Your task to perform on an android device: open app "Flipkart Online Shopping App" Image 0: 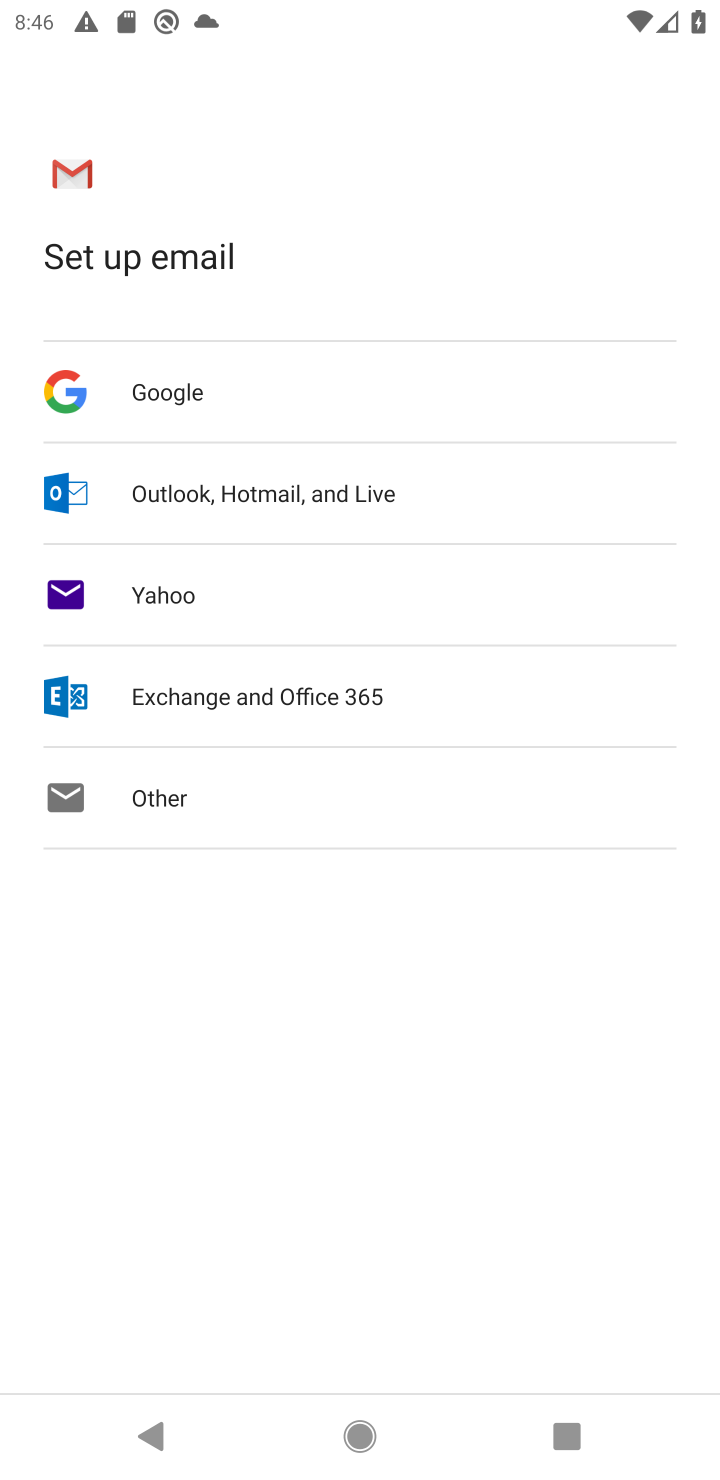
Step 0: press home button
Your task to perform on an android device: open app "Flipkart Online Shopping App" Image 1: 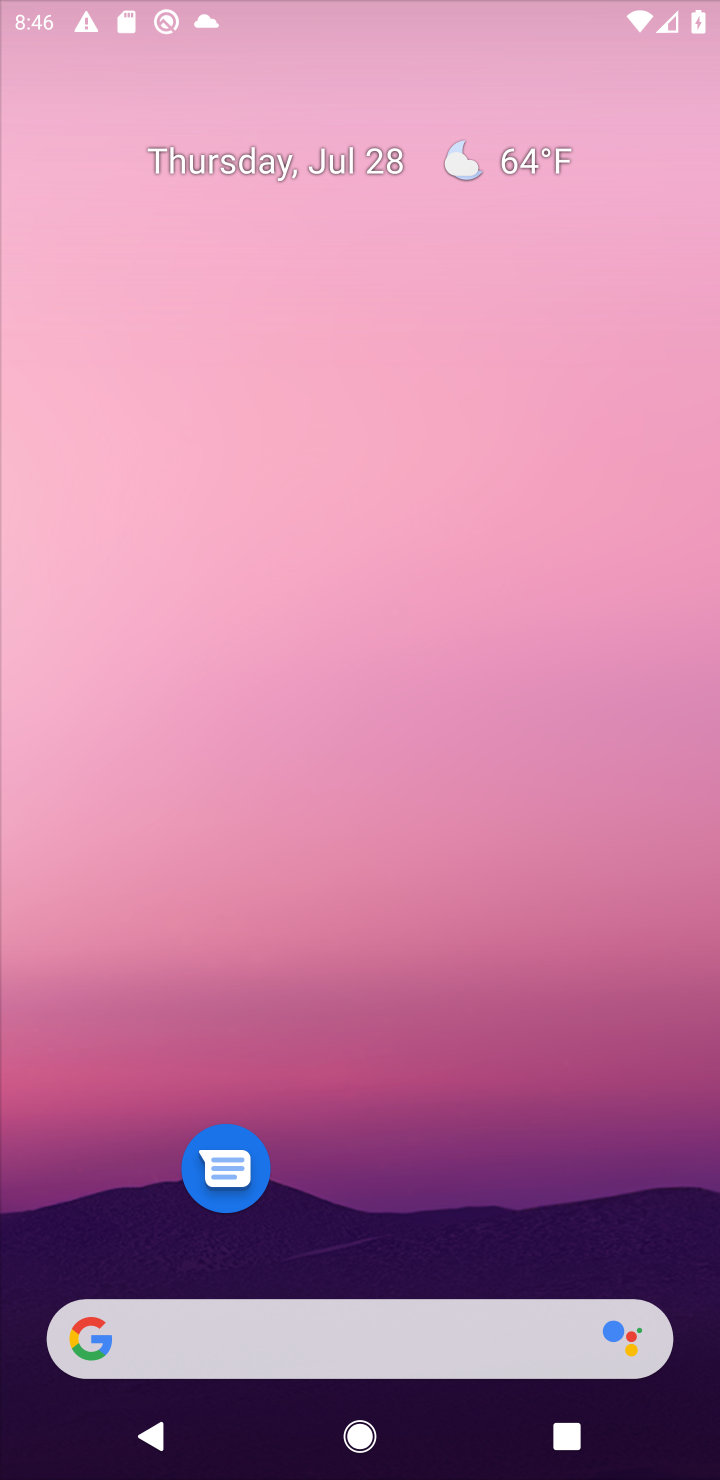
Step 1: drag from (545, 1318) to (702, 182)
Your task to perform on an android device: open app "Flipkart Online Shopping App" Image 2: 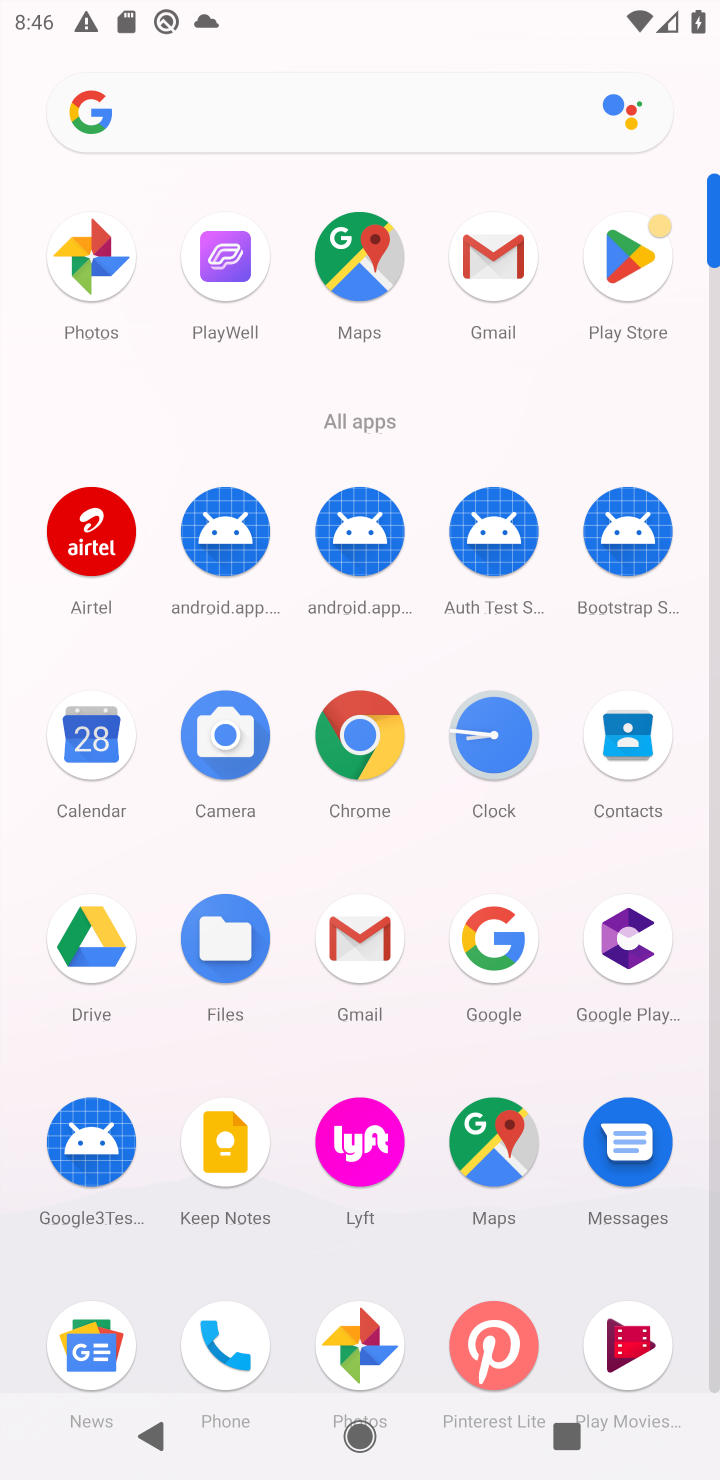
Step 2: drag from (422, 1243) to (423, 378)
Your task to perform on an android device: open app "Flipkart Online Shopping App" Image 3: 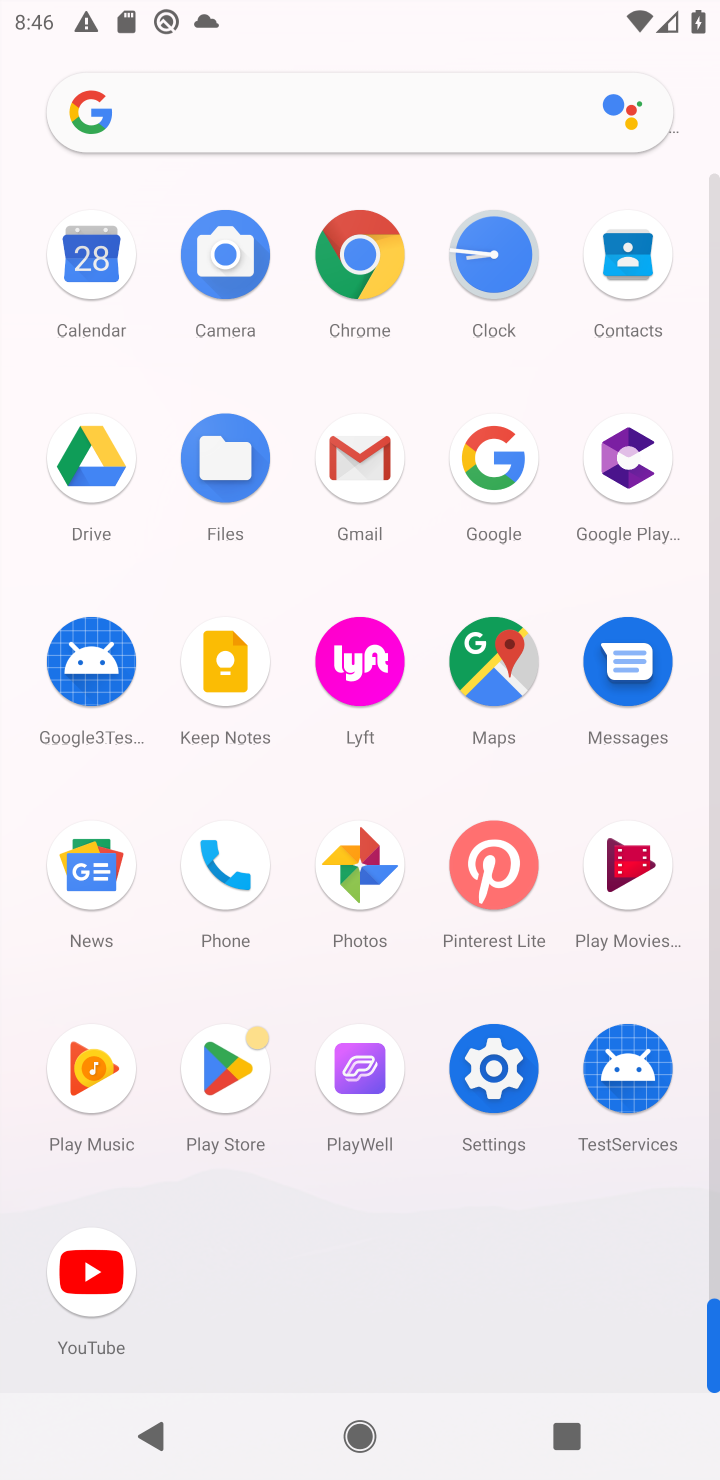
Step 3: click (227, 1073)
Your task to perform on an android device: open app "Flipkart Online Shopping App" Image 4: 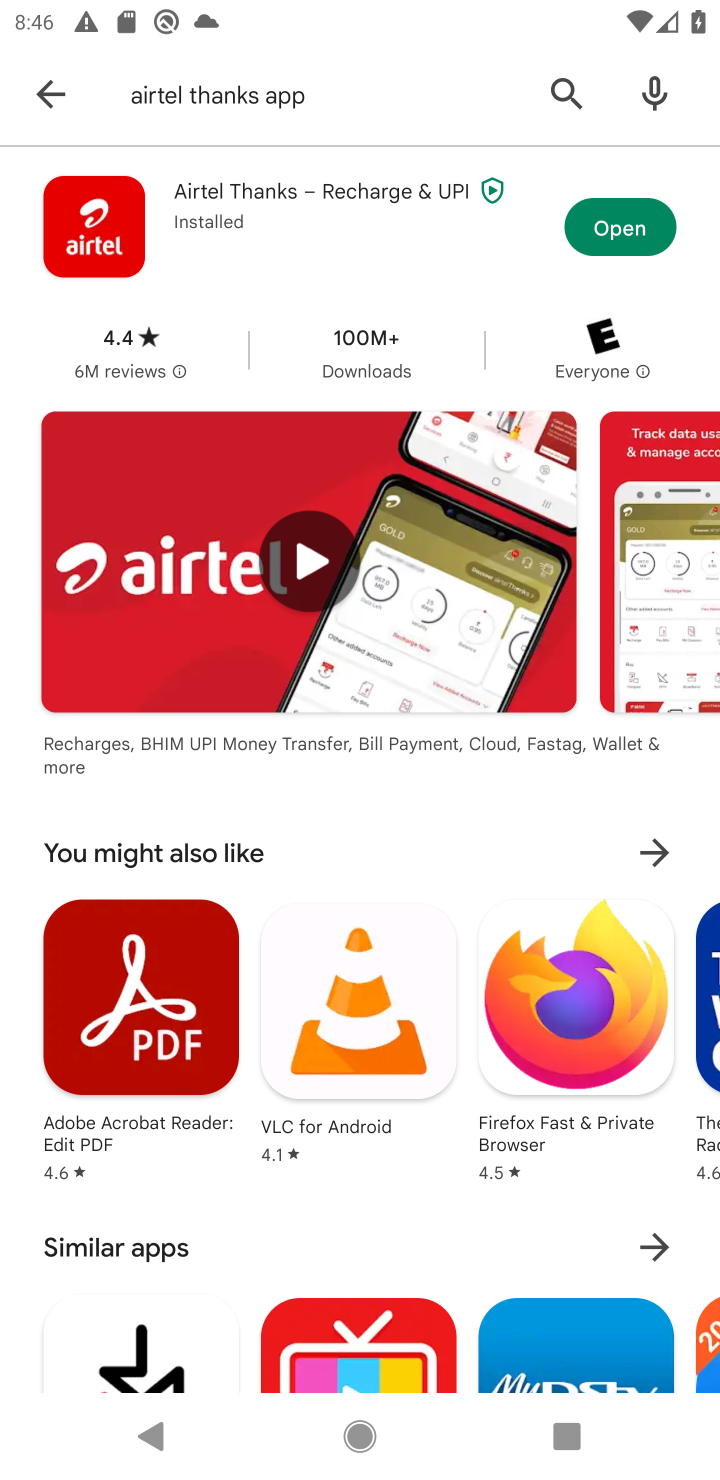
Step 4: click (550, 89)
Your task to perform on an android device: open app "Flipkart Online Shopping App" Image 5: 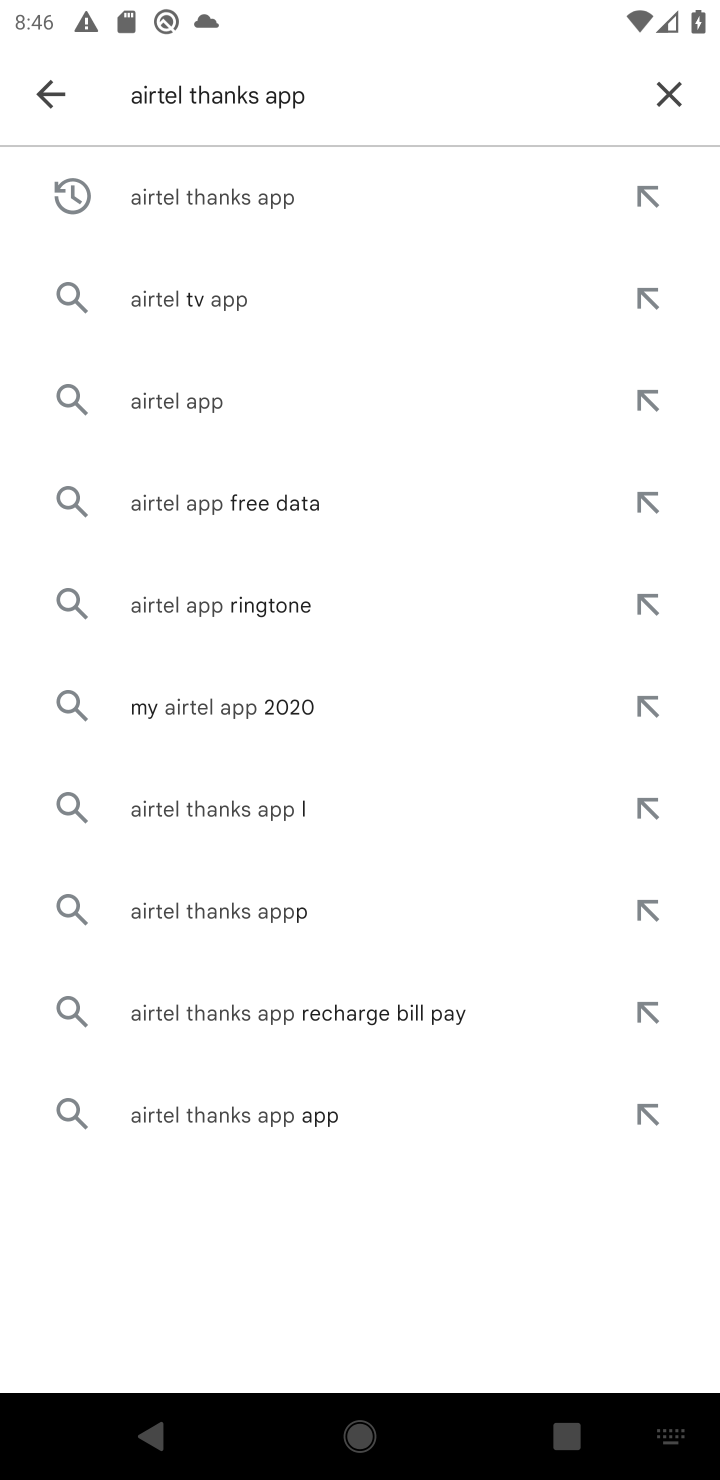
Step 5: click (667, 88)
Your task to perform on an android device: open app "Flipkart Online Shopping App" Image 6: 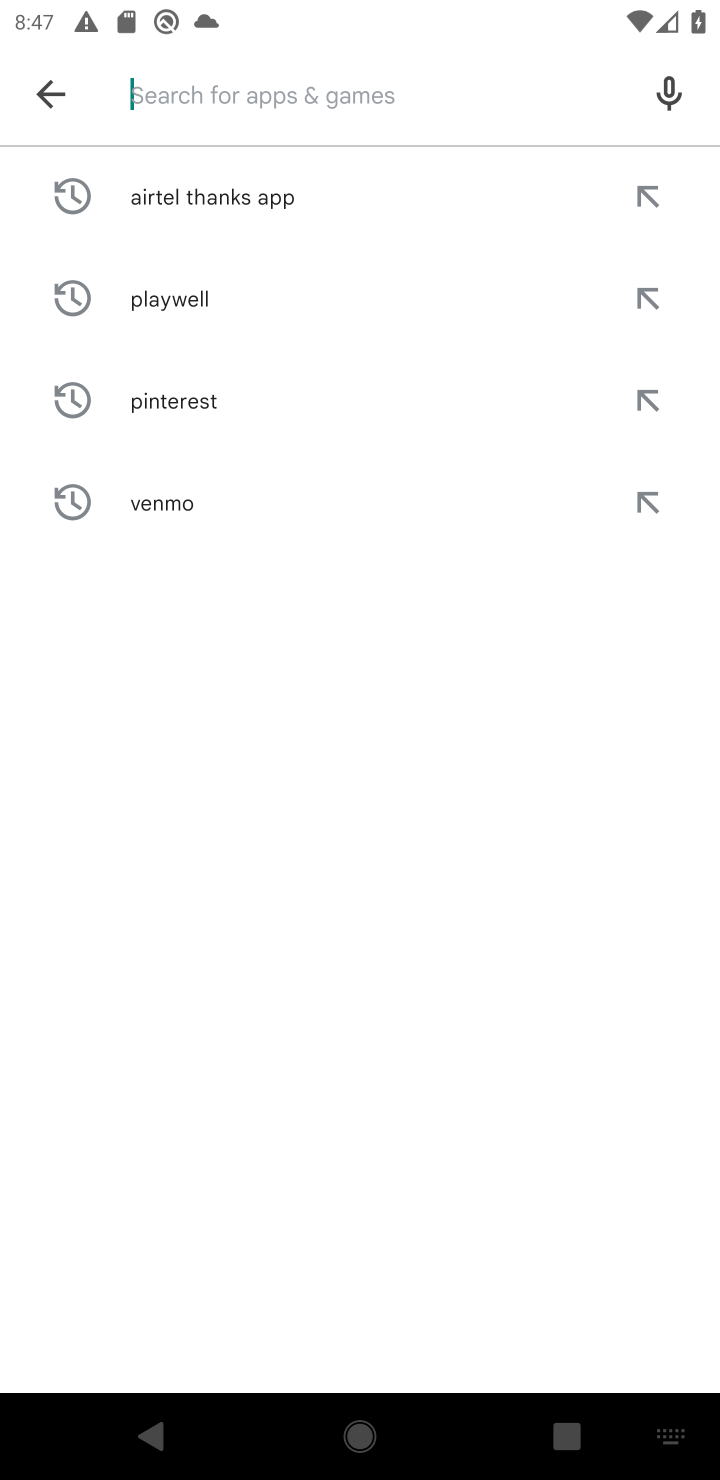
Step 6: type "flipkart online shopping"
Your task to perform on an android device: open app "Flipkart Online Shopping App" Image 7: 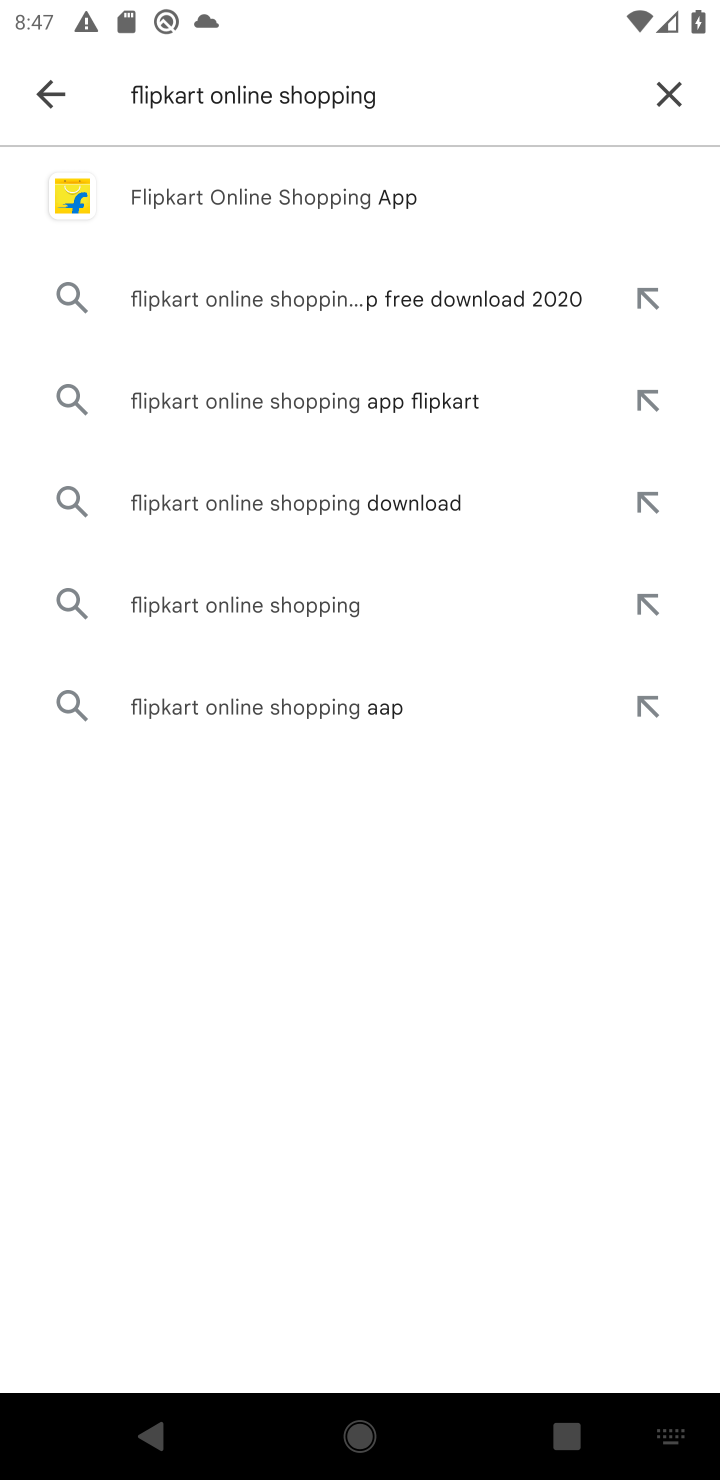
Step 7: click (336, 196)
Your task to perform on an android device: open app "Flipkart Online Shopping App" Image 8: 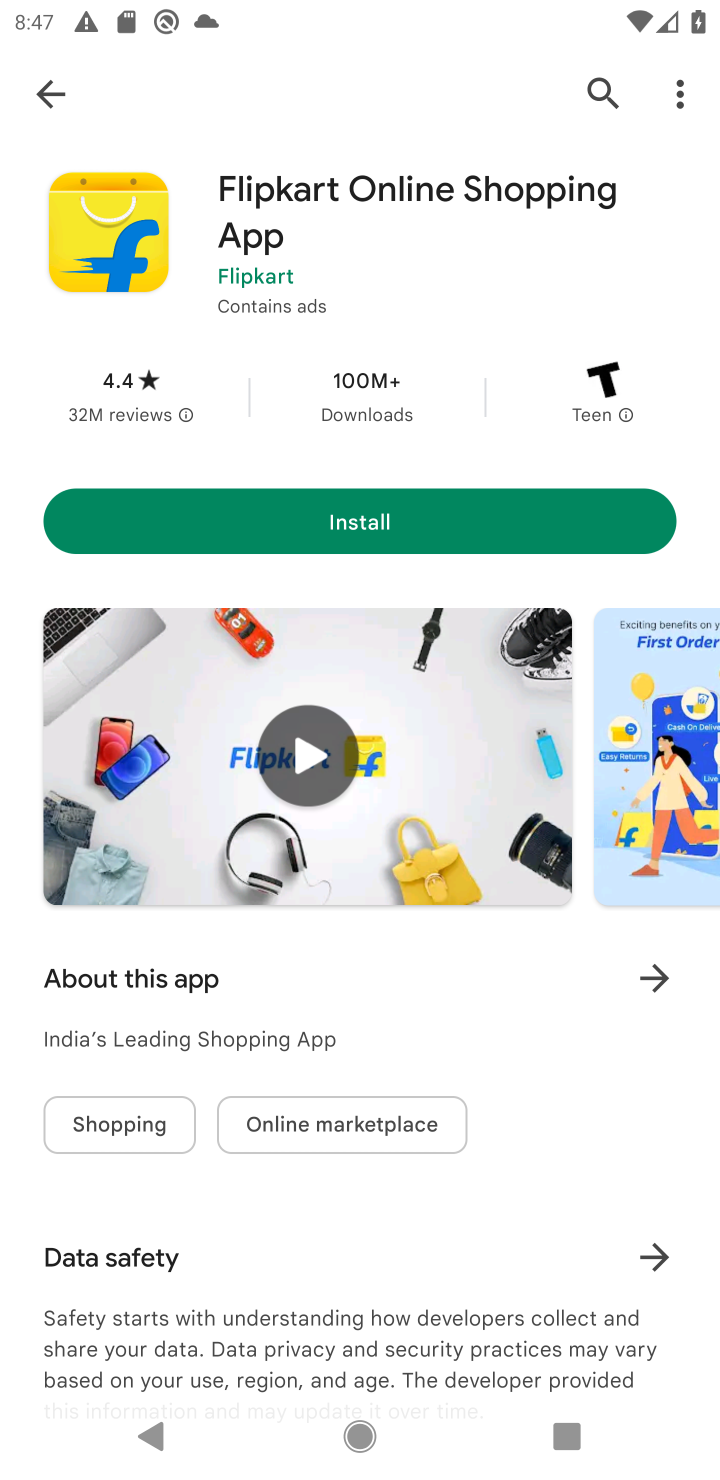
Step 8: task complete